Your task to perform on an android device: Open accessibility settings Image 0: 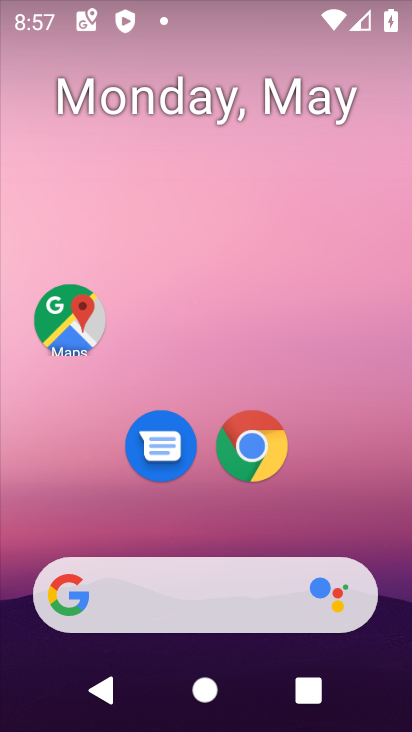
Step 0: drag from (204, 520) to (219, 52)
Your task to perform on an android device: Open accessibility settings Image 1: 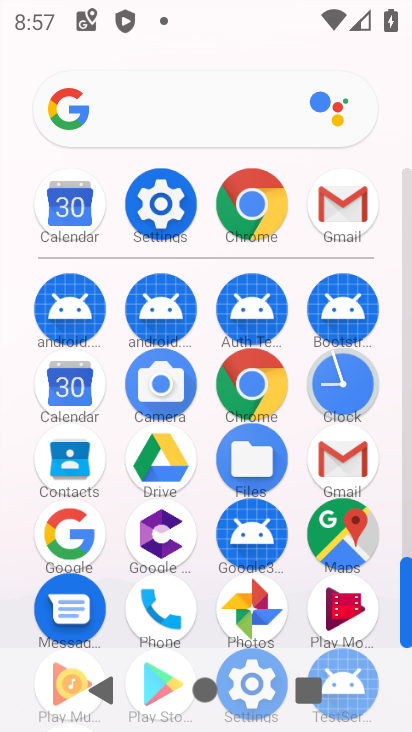
Step 1: click (160, 193)
Your task to perform on an android device: Open accessibility settings Image 2: 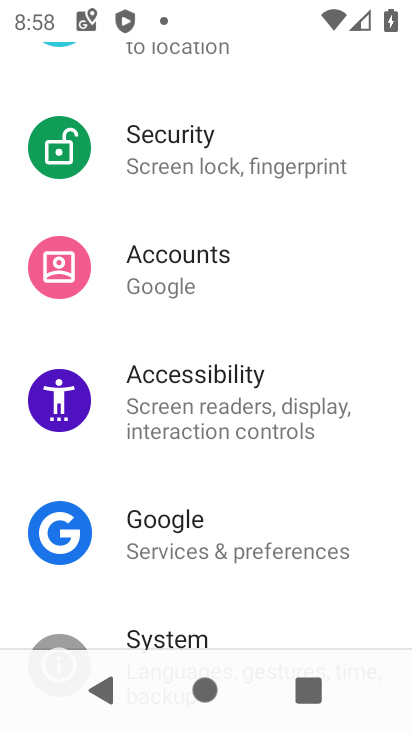
Step 2: click (179, 389)
Your task to perform on an android device: Open accessibility settings Image 3: 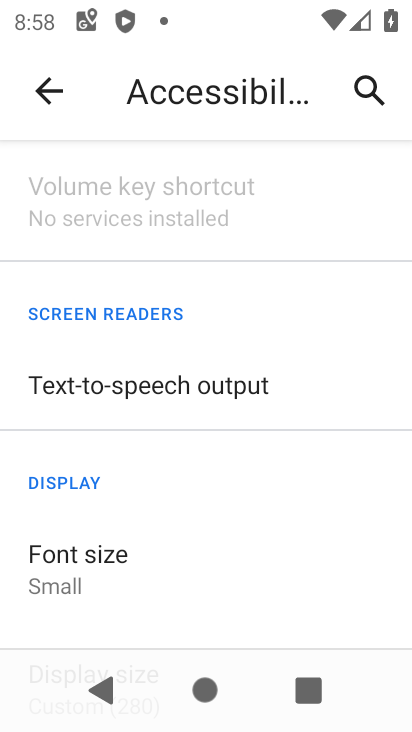
Step 3: task complete